Your task to perform on an android device: What is the news today? Image 0: 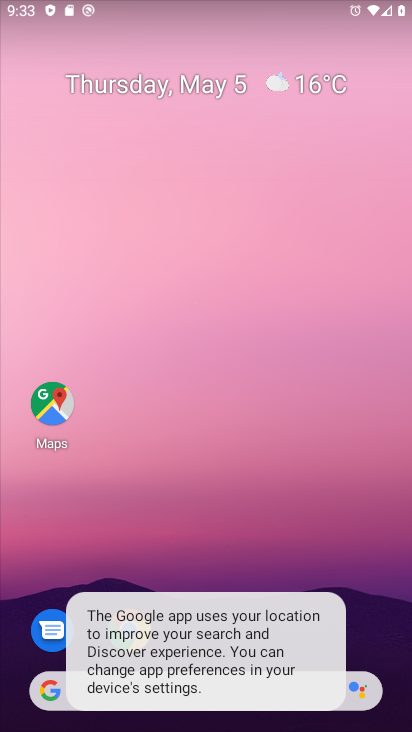
Step 0: drag from (345, 573) to (333, 121)
Your task to perform on an android device: What is the news today? Image 1: 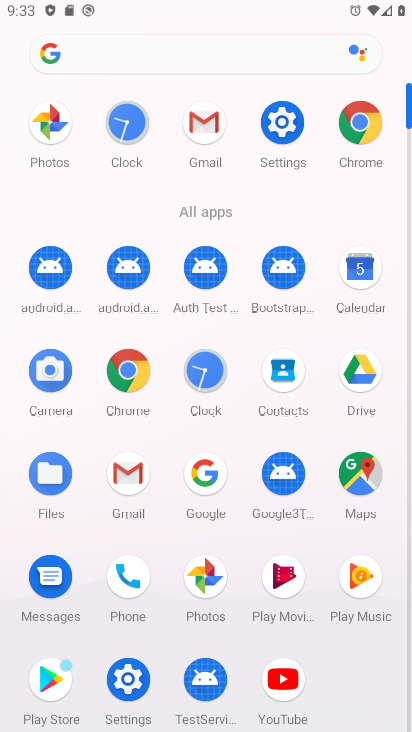
Step 1: click (361, 134)
Your task to perform on an android device: What is the news today? Image 2: 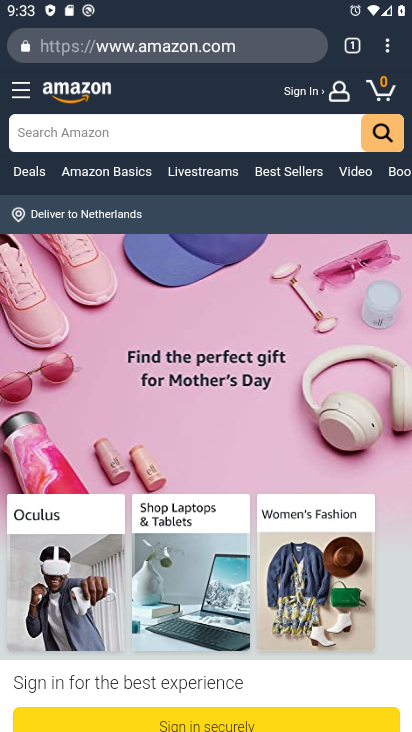
Step 2: click (148, 50)
Your task to perform on an android device: What is the news today? Image 3: 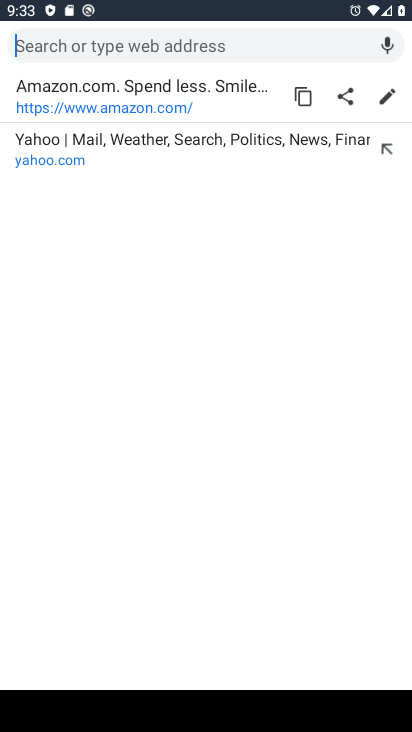
Step 3: type "whst is the news today?"
Your task to perform on an android device: What is the news today? Image 4: 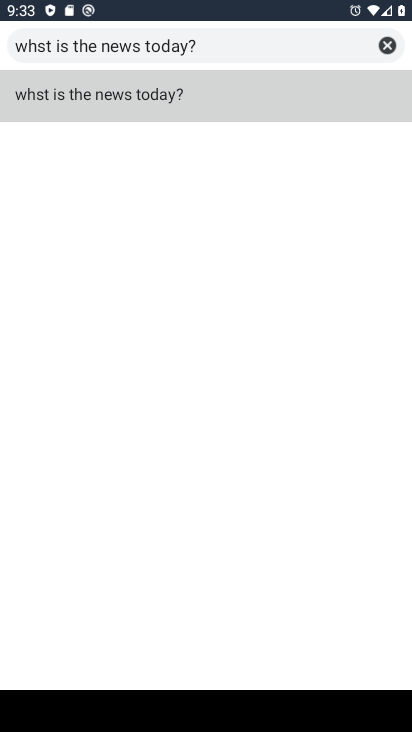
Step 4: click (96, 79)
Your task to perform on an android device: What is the news today? Image 5: 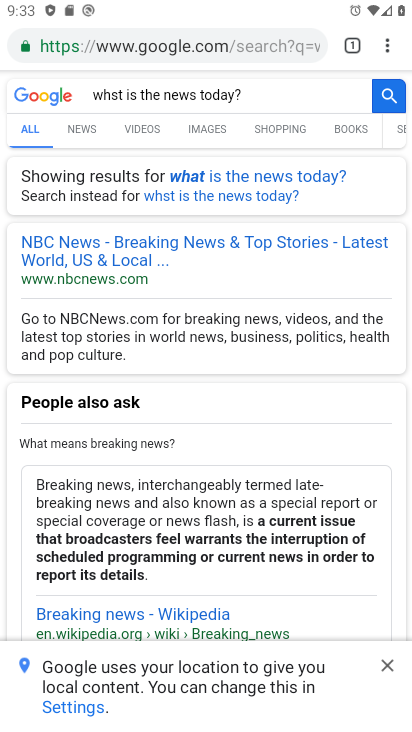
Step 5: click (192, 174)
Your task to perform on an android device: What is the news today? Image 6: 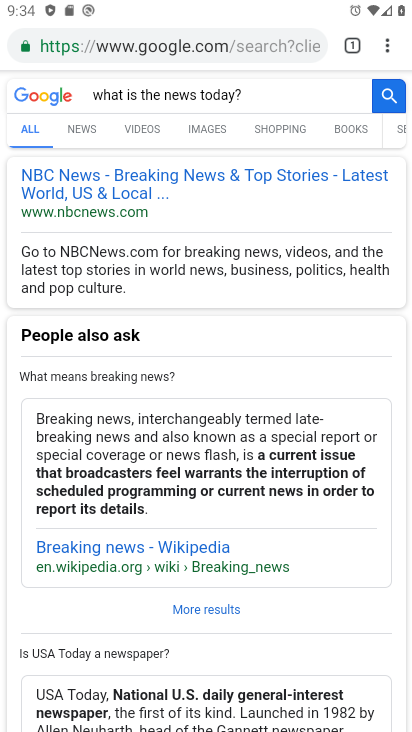
Step 6: click (128, 205)
Your task to perform on an android device: What is the news today? Image 7: 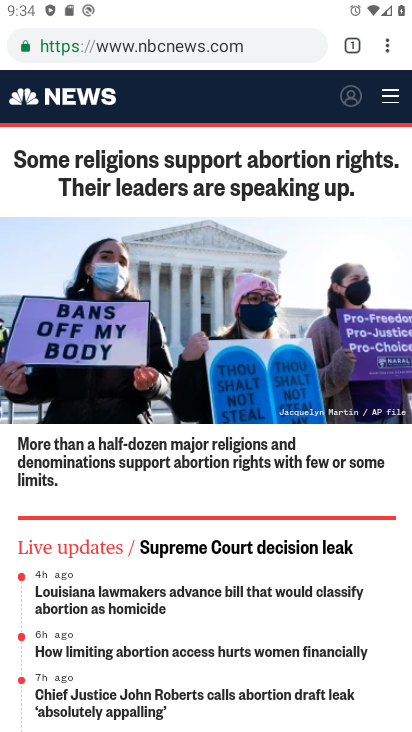
Step 7: task complete